Your task to perform on an android device: turn on improve location accuracy Image 0: 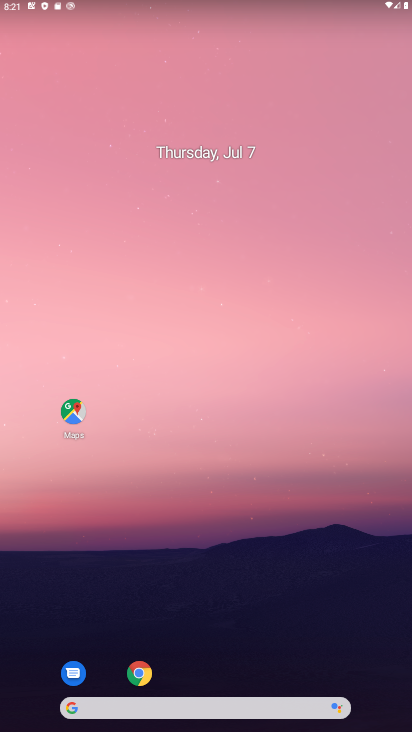
Step 0: press home button
Your task to perform on an android device: turn on improve location accuracy Image 1: 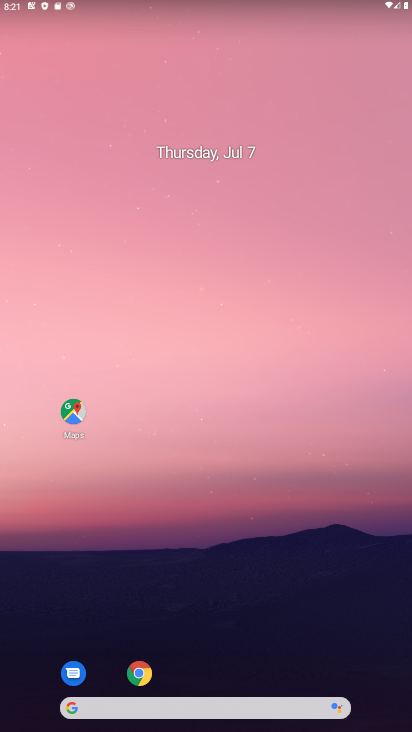
Step 1: drag from (254, 674) to (191, 1)
Your task to perform on an android device: turn on improve location accuracy Image 2: 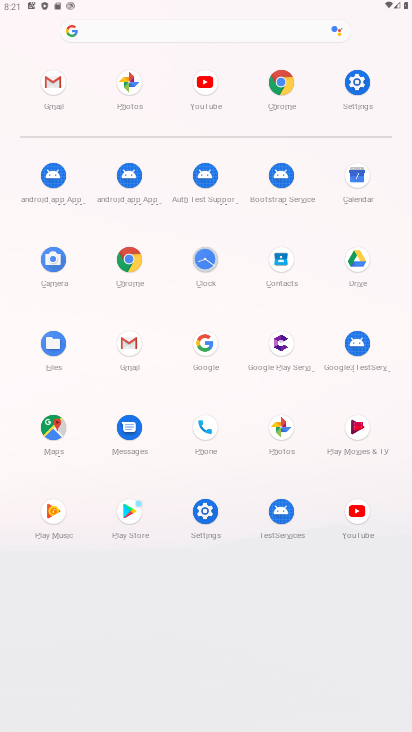
Step 2: click (364, 87)
Your task to perform on an android device: turn on improve location accuracy Image 3: 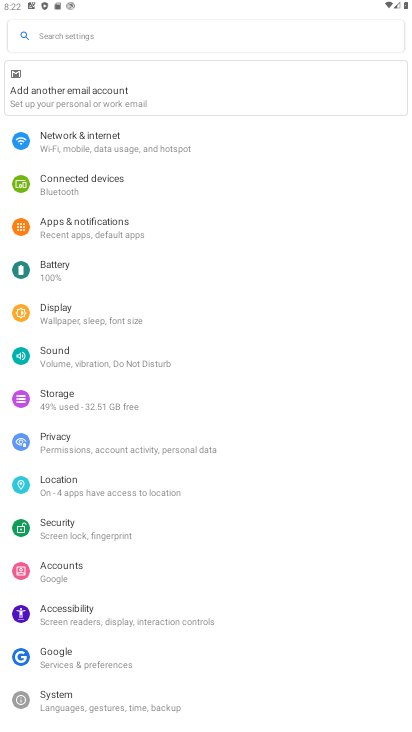
Step 3: click (82, 486)
Your task to perform on an android device: turn on improve location accuracy Image 4: 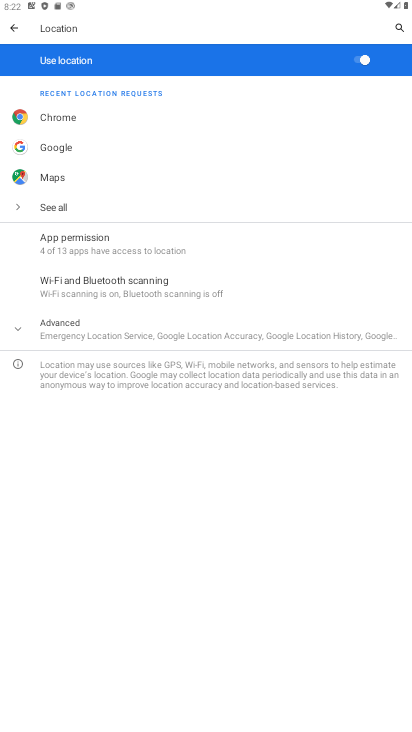
Step 4: click (55, 326)
Your task to perform on an android device: turn on improve location accuracy Image 5: 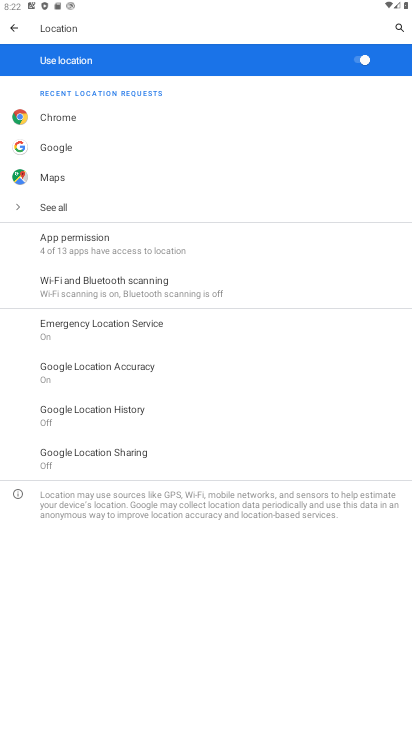
Step 5: click (108, 366)
Your task to perform on an android device: turn on improve location accuracy Image 6: 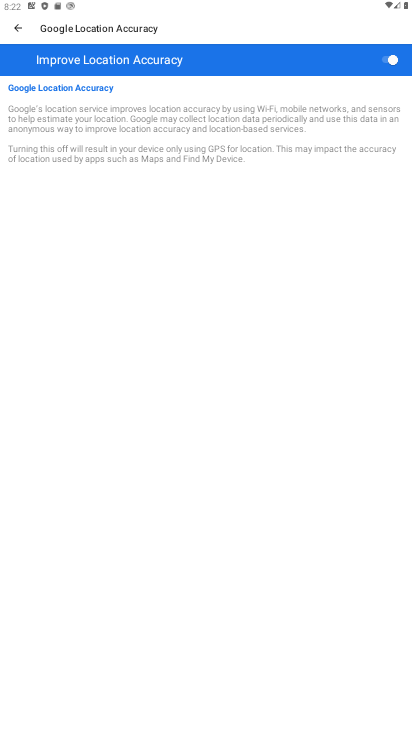
Step 6: task complete